Your task to perform on an android device: Open internet settings Image 0: 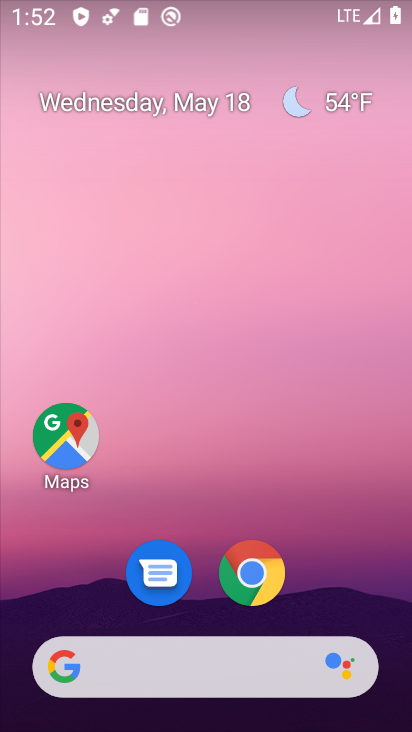
Step 0: drag from (222, 641) to (280, 128)
Your task to perform on an android device: Open internet settings Image 1: 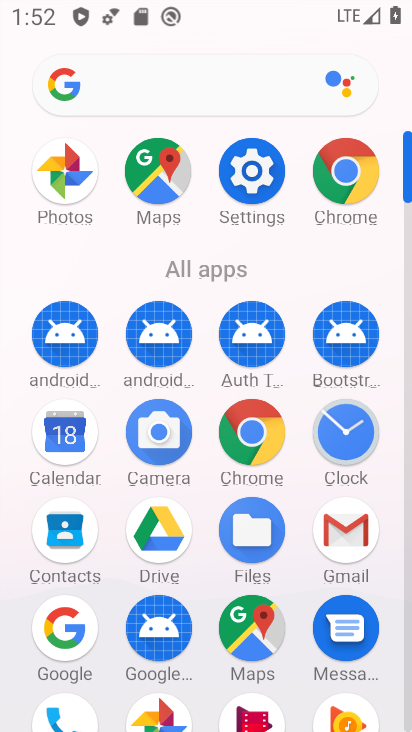
Step 1: click (232, 156)
Your task to perform on an android device: Open internet settings Image 2: 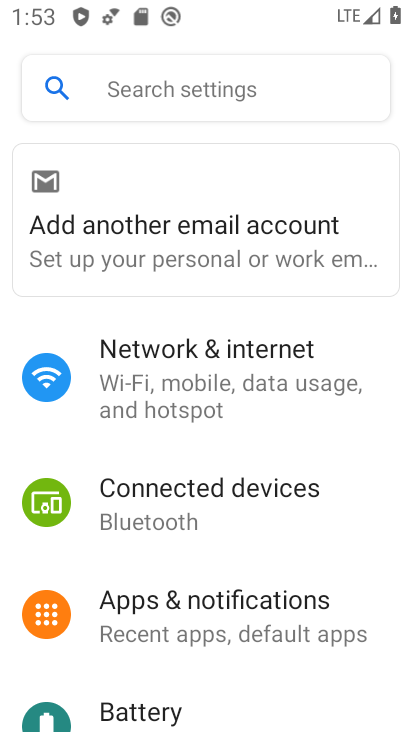
Step 2: click (208, 371)
Your task to perform on an android device: Open internet settings Image 3: 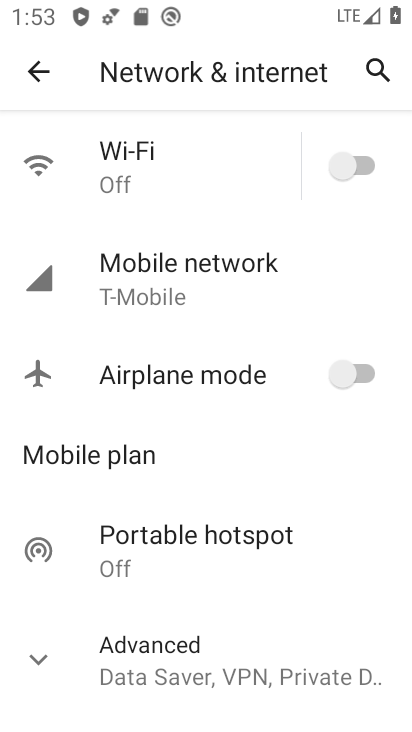
Step 3: task complete